Your task to perform on an android device: turn notification dots off Image 0: 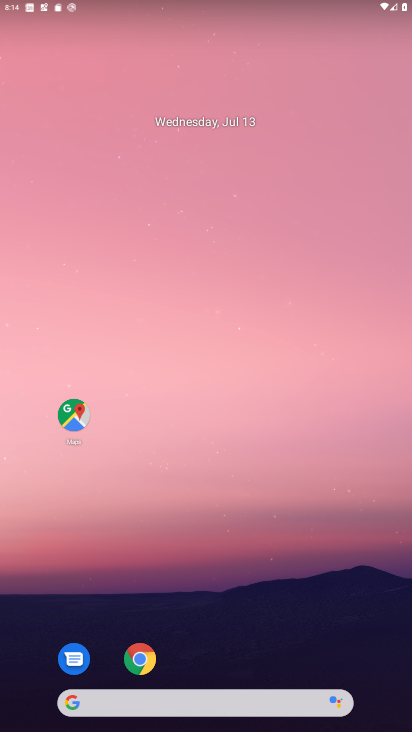
Step 0: drag from (199, 541) to (139, 245)
Your task to perform on an android device: turn notification dots off Image 1: 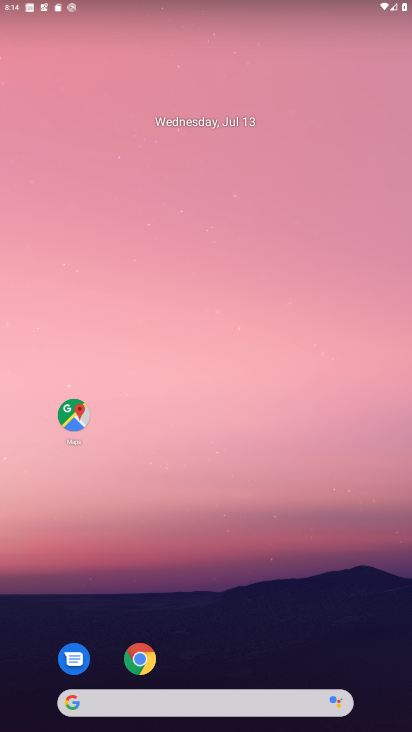
Step 1: drag from (216, 541) to (245, 3)
Your task to perform on an android device: turn notification dots off Image 2: 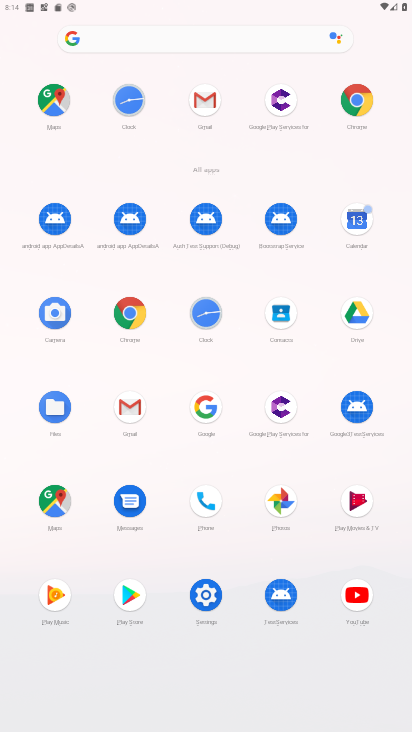
Step 2: click (204, 597)
Your task to perform on an android device: turn notification dots off Image 3: 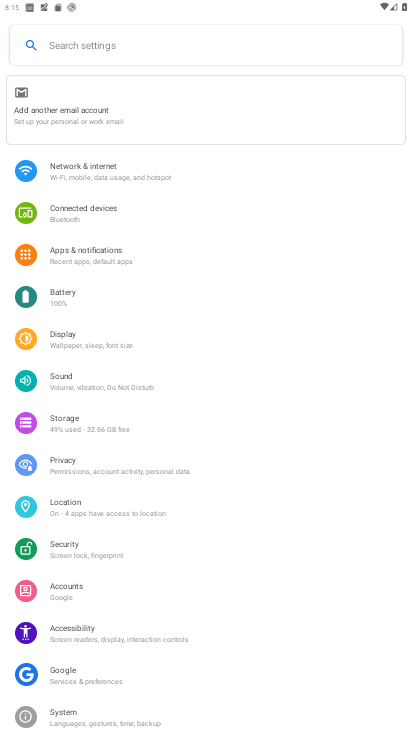
Step 3: click (84, 250)
Your task to perform on an android device: turn notification dots off Image 4: 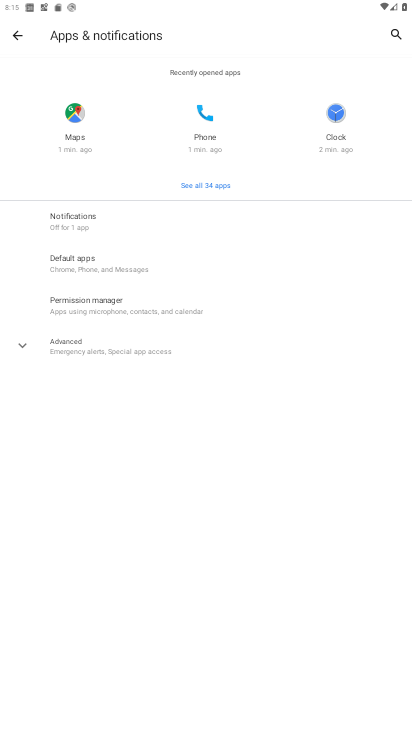
Step 4: click (77, 217)
Your task to perform on an android device: turn notification dots off Image 5: 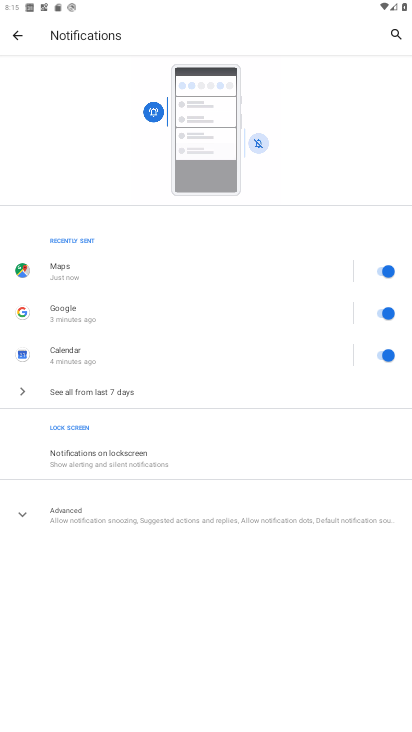
Step 5: click (25, 514)
Your task to perform on an android device: turn notification dots off Image 6: 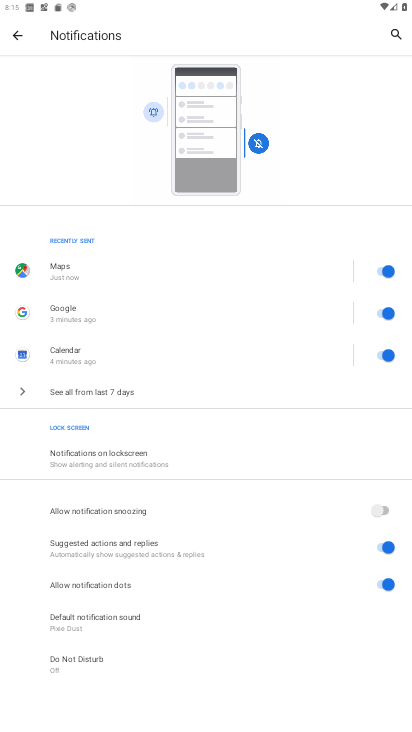
Step 6: click (388, 582)
Your task to perform on an android device: turn notification dots off Image 7: 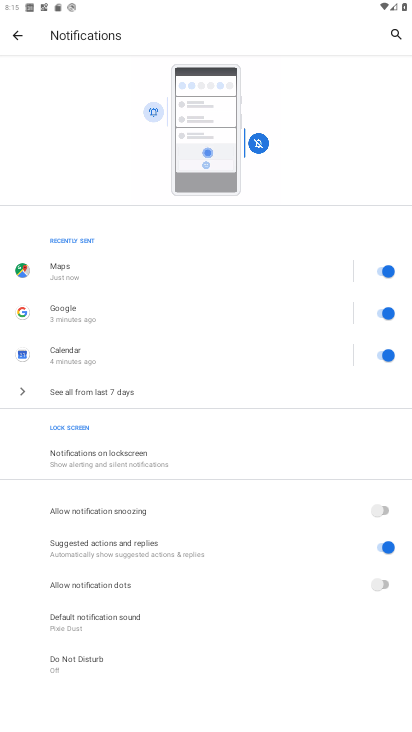
Step 7: task complete